Your task to perform on an android device: turn off location Image 0: 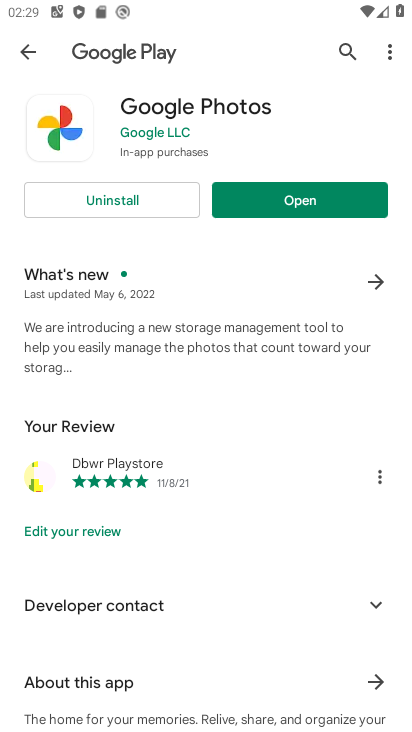
Step 0: press home button
Your task to perform on an android device: turn off location Image 1: 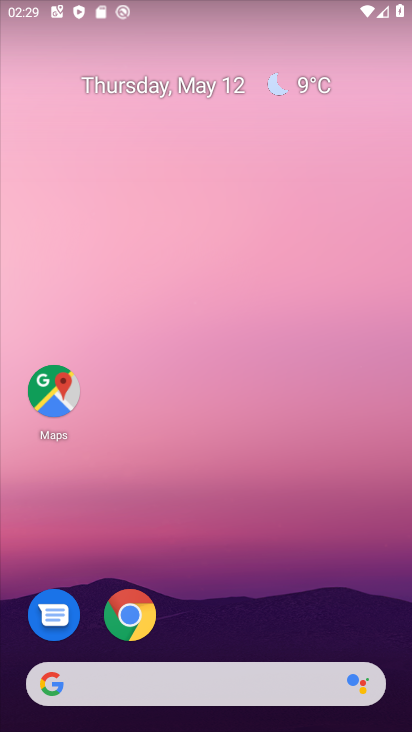
Step 1: drag from (205, 669) to (178, 358)
Your task to perform on an android device: turn off location Image 2: 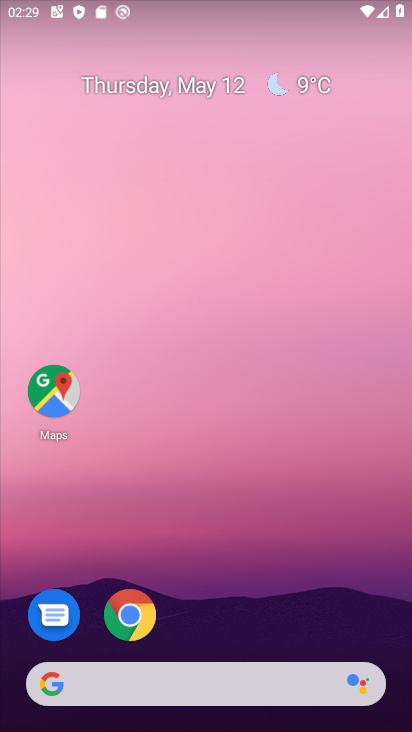
Step 2: drag from (202, 696) to (198, 295)
Your task to perform on an android device: turn off location Image 3: 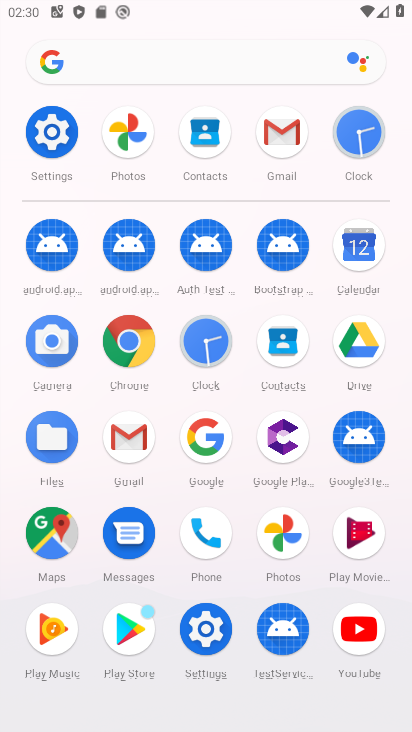
Step 3: click (66, 120)
Your task to perform on an android device: turn off location Image 4: 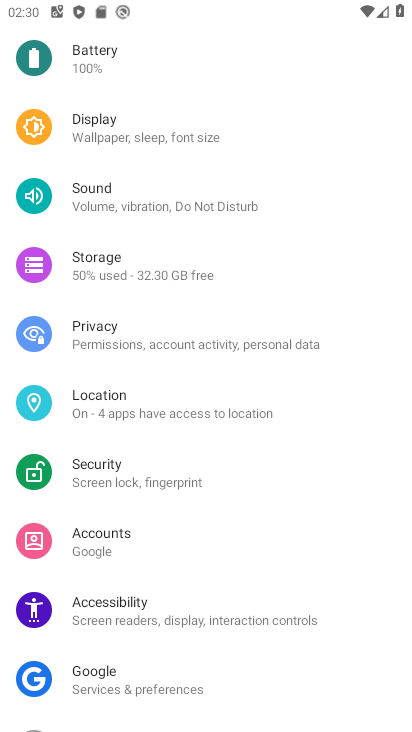
Step 4: click (140, 416)
Your task to perform on an android device: turn off location Image 5: 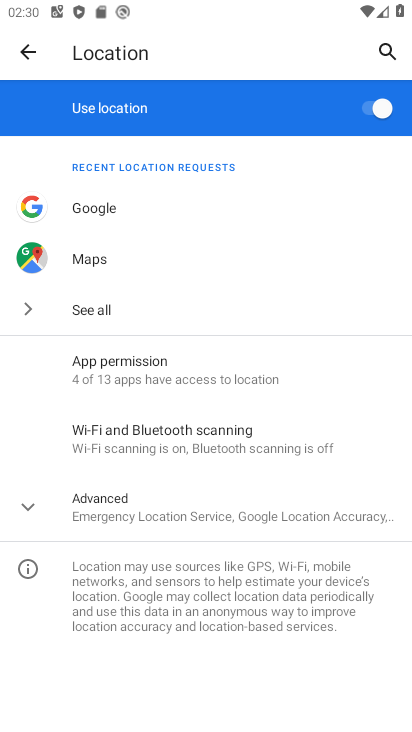
Step 5: click (389, 101)
Your task to perform on an android device: turn off location Image 6: 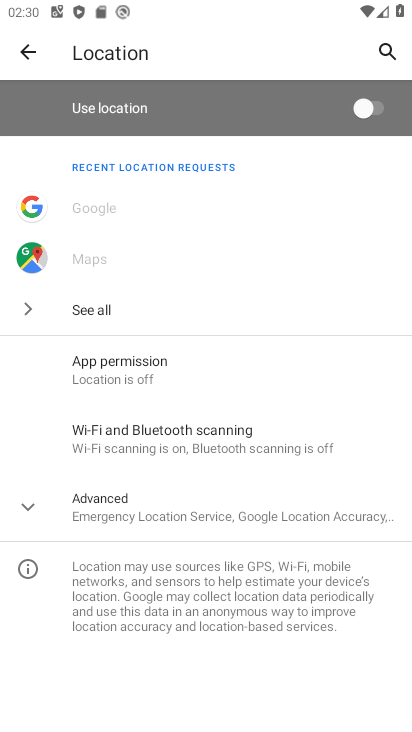
Step 6: task complete